Your task to perform on an android device: set the timer Image 0: 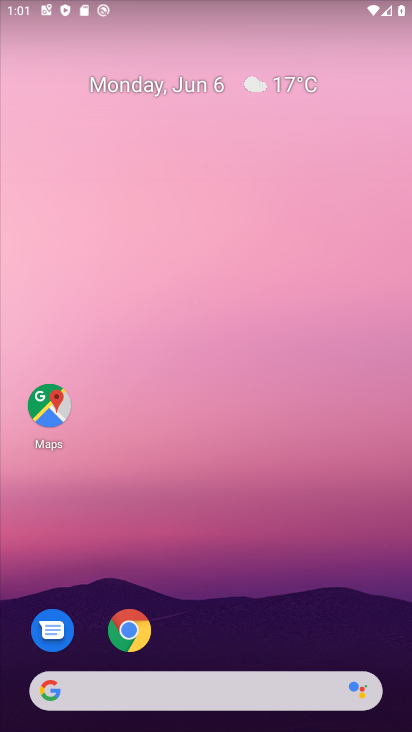
Step 0: drag from (233, 191) to (209, 87)
Your task to perform on an android device: set the timer Image 1: 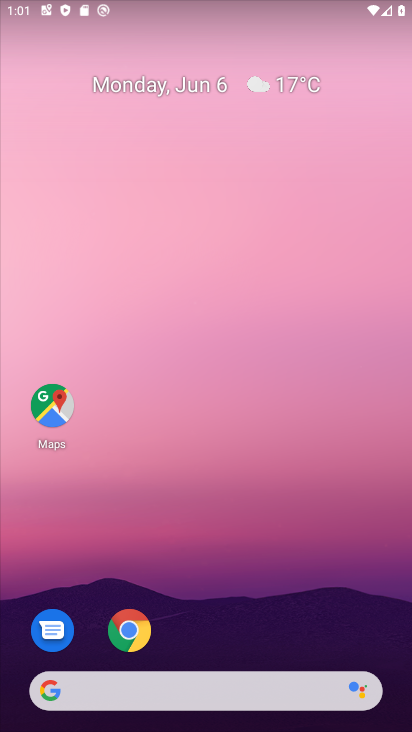
Step 1: drag from (204, 718) to (114, 145)
Your task to perform on an android device: set the timer Image 2: 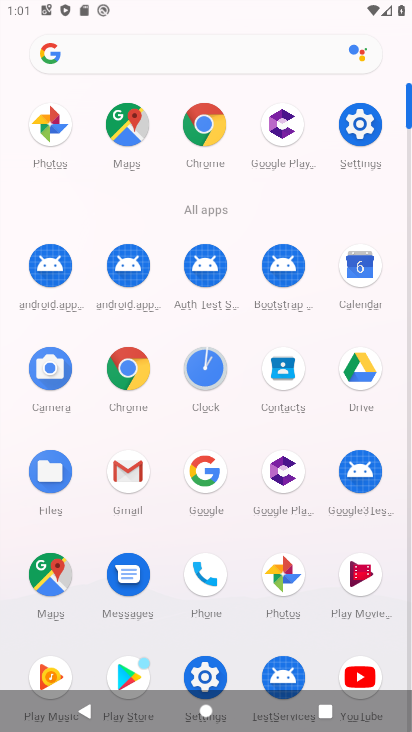
Step 2: click (211, 366)
Your task to perform on an android device: set the timer Image 3: 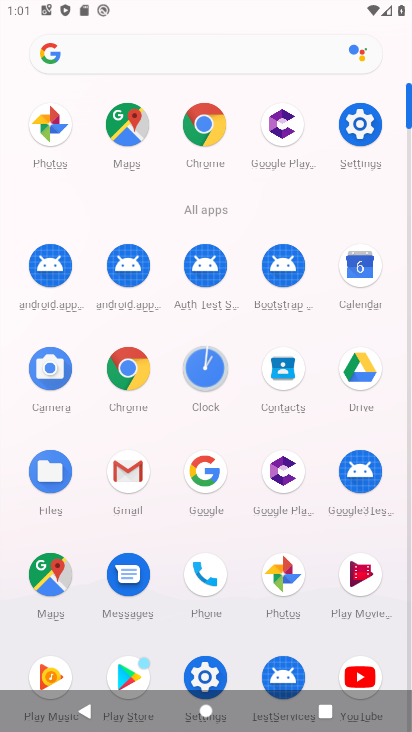
Step 3: click (211, 366)
Your task to perform on an android device: set the timer Image 4: 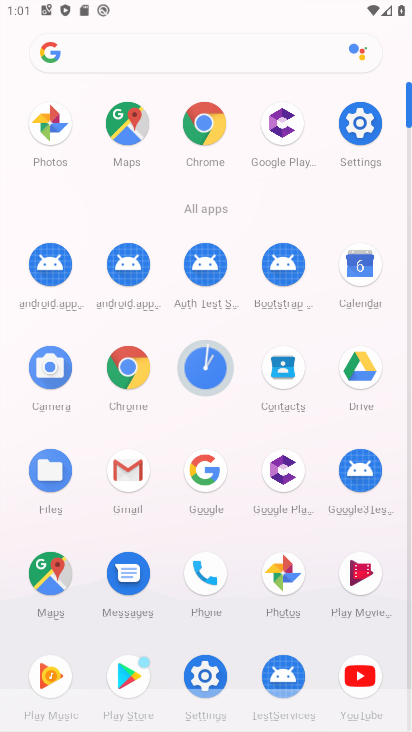
Step 4: click (211, 366)
Your task to perform on an android device: set the timer Image 5: 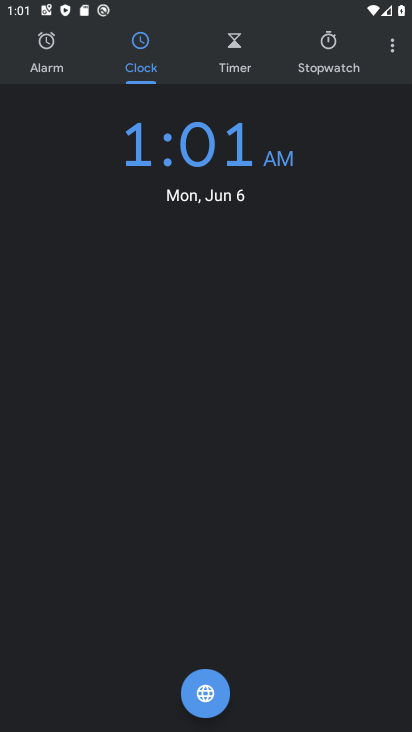
Step 5: click (231, 58)
Your task to perform on an android device: set the timer Image 6: 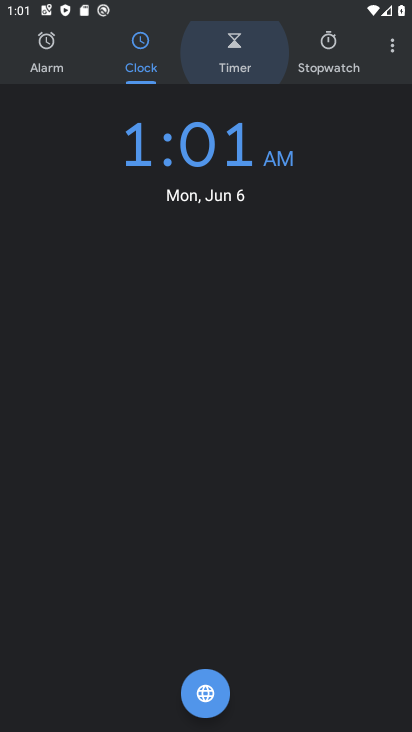
Step 6: click (231, 58)
Your task to perform on an android device: set the timer Image 7: 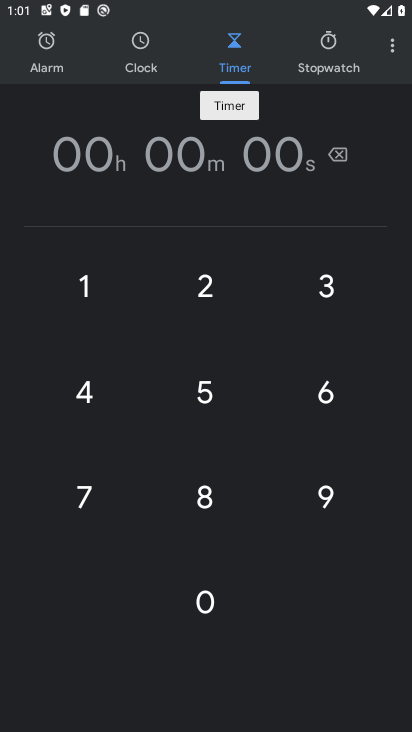
Step 7: click (205, 502)
Your task to perform on an android device: set the timer Image 8: 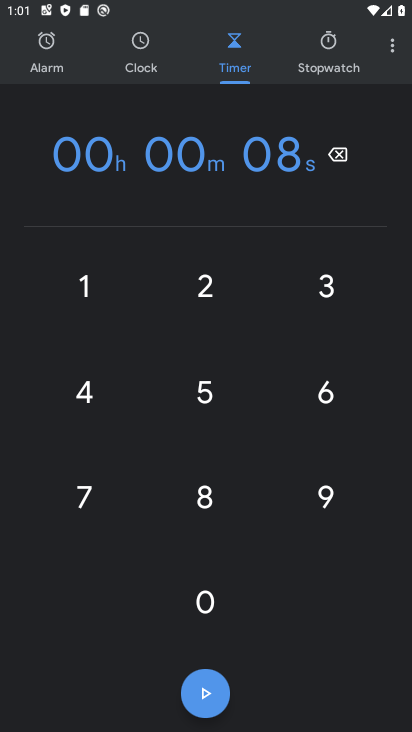
Step 8: click (204, 698)
Your task to perform on an android device: set the timer Image 9: 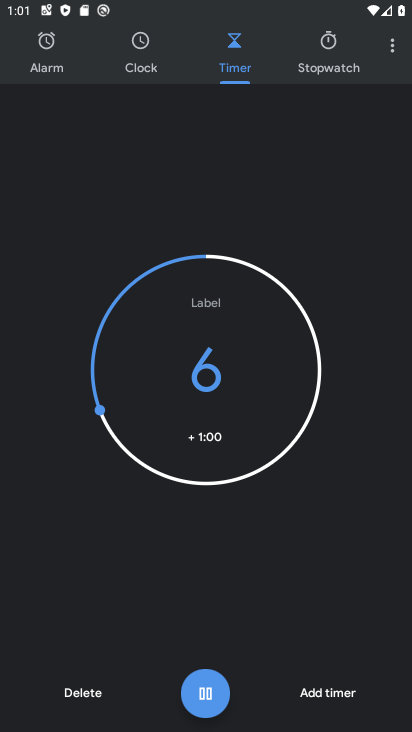
Step 9: click (200, 692)
Your task to perform on an android device: set the timer Image 10: 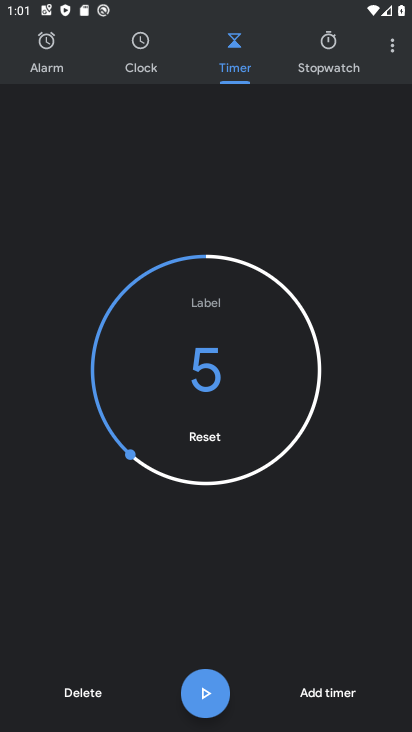
Step 10: task complete